Your task to perform on an android device: Search for a sofa on article.com Image 0: 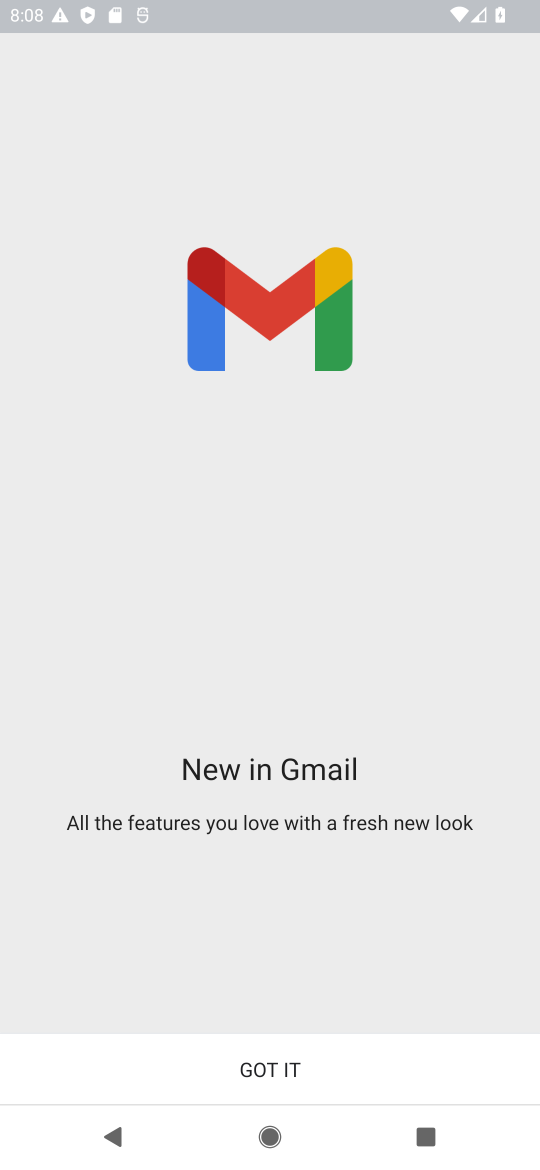
Step 0: click (254, 1081)
Your task to perform on an android device: Search for a sofa on article.com Image 1: 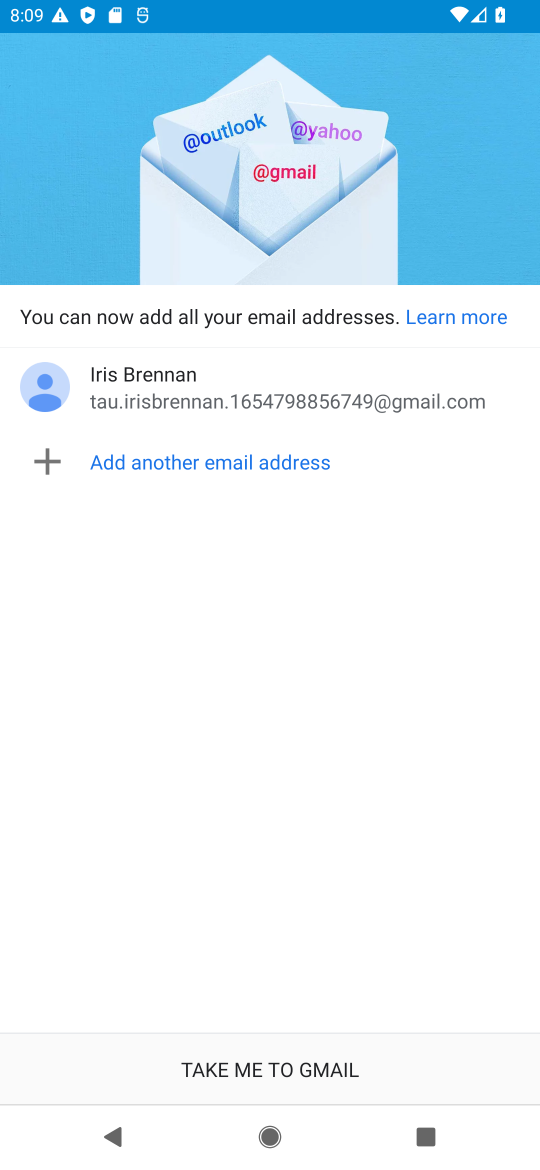
Step 1: click (219, 1070)
Your task to perform on an android device: Search for a sofa on article.com Image 2: 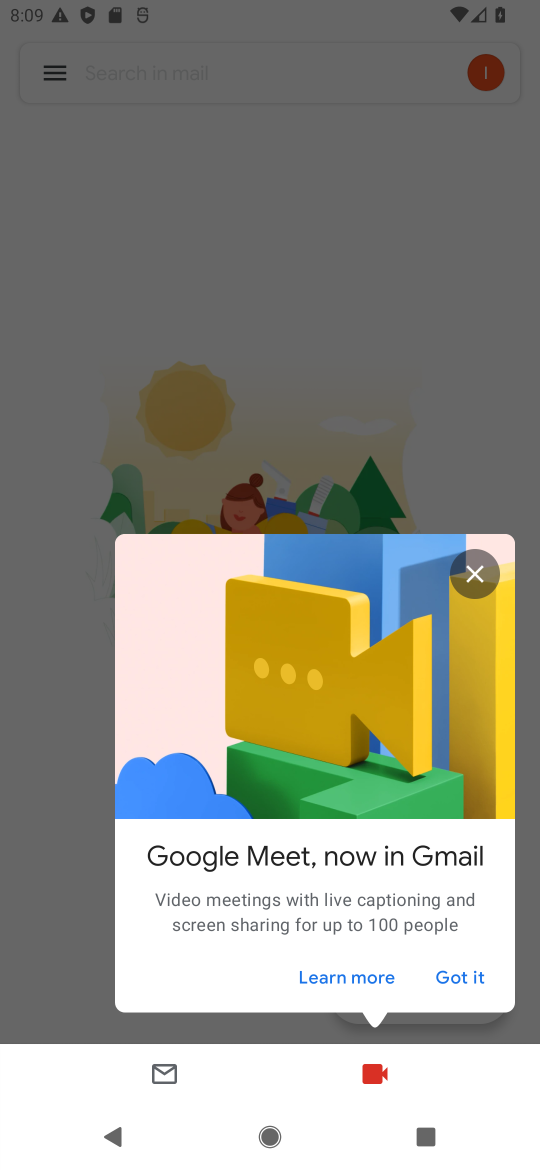
Step 2: click (471, 981)
Your task to perform on an android device: Search for a sofa on article.com Image 3: 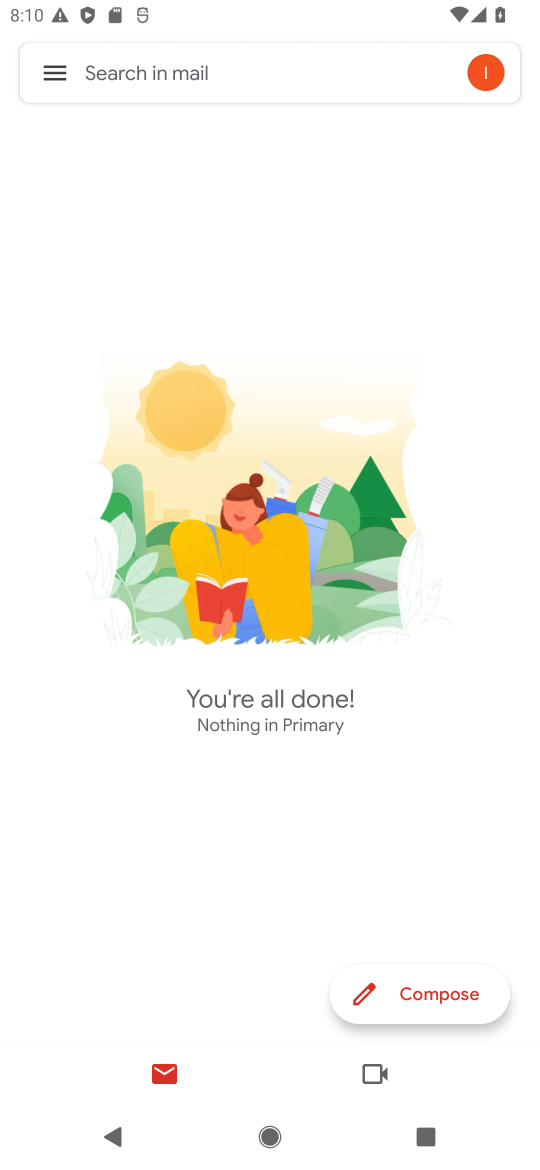
Step 3: press home button
Your task to perform on an android device: Search for a sofa on article.com Image 4: 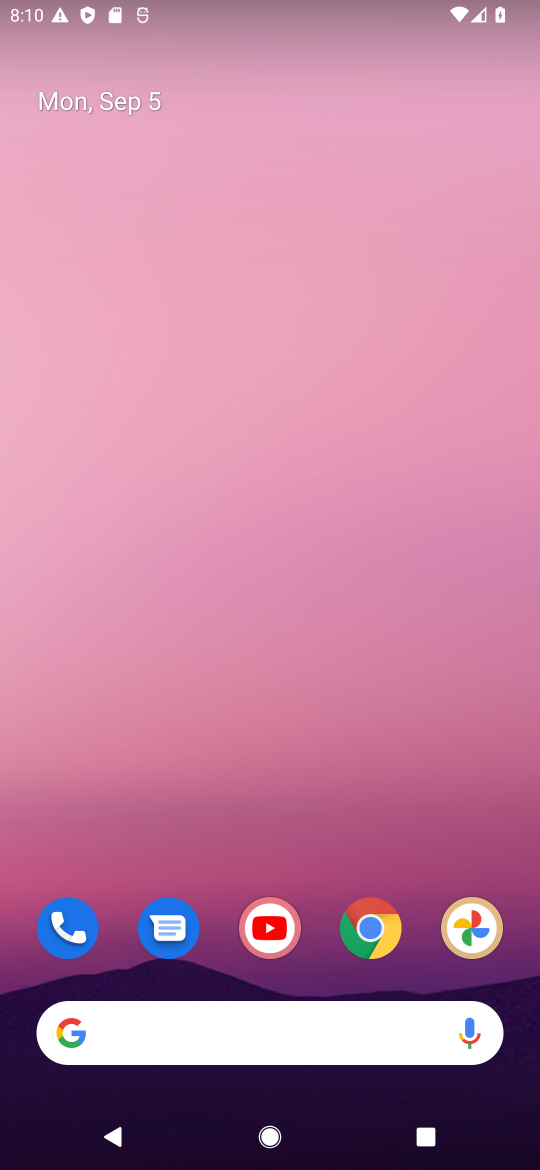
Step 4: click (353, 946)
Your task to perform on an android device: Search for a sofa on article.com Image 5: 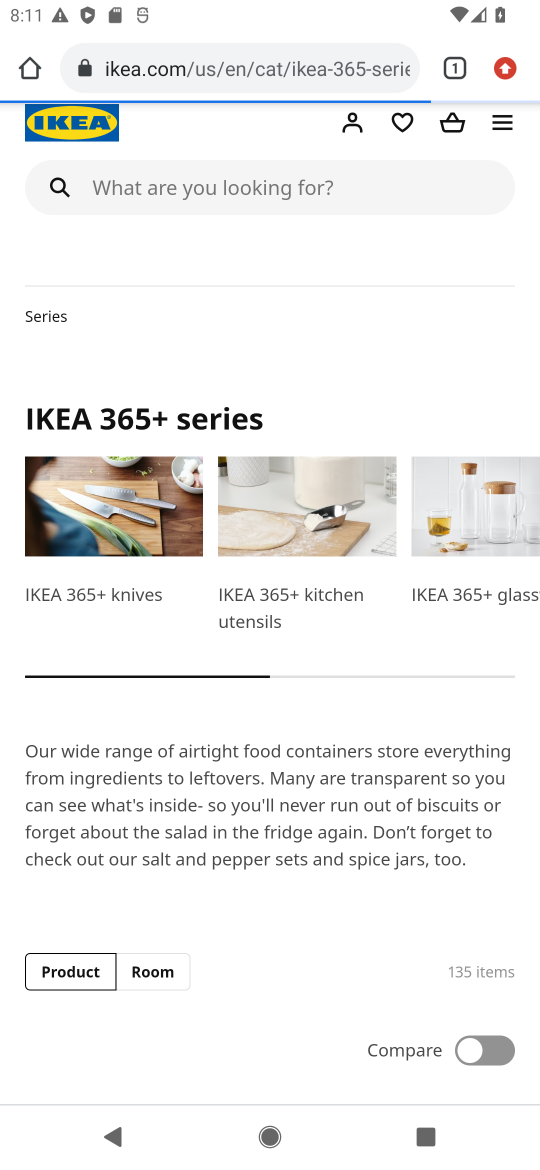
Step 5: click (287, 76)
Your task to perform on an android device: Search for a sofa on article.com Image 6: 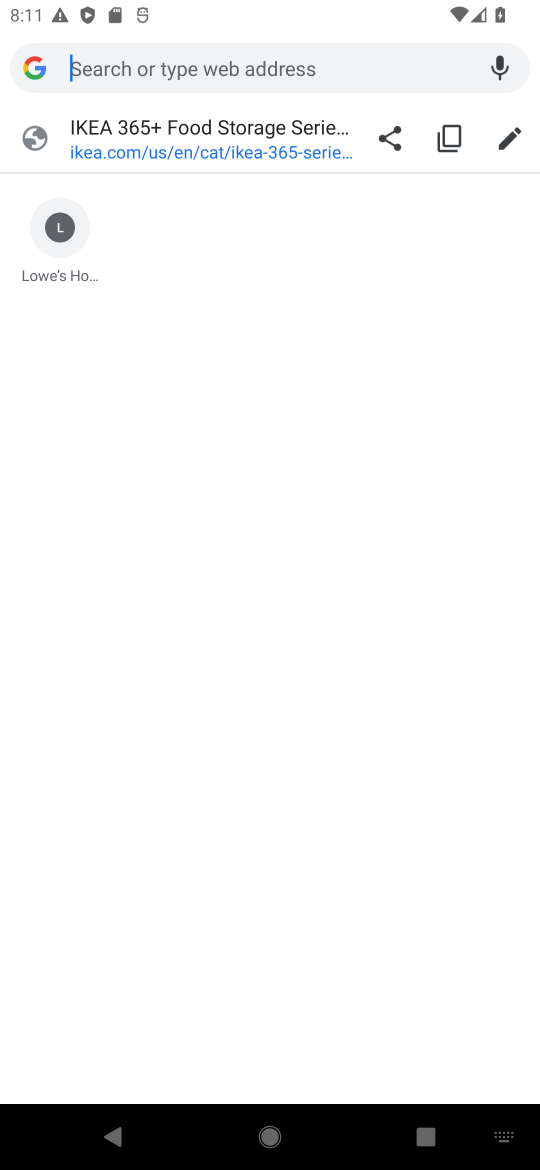
Step 6: type "article.com"
Your task to perform on an android device: Search for a sofa on article.com Image 7: 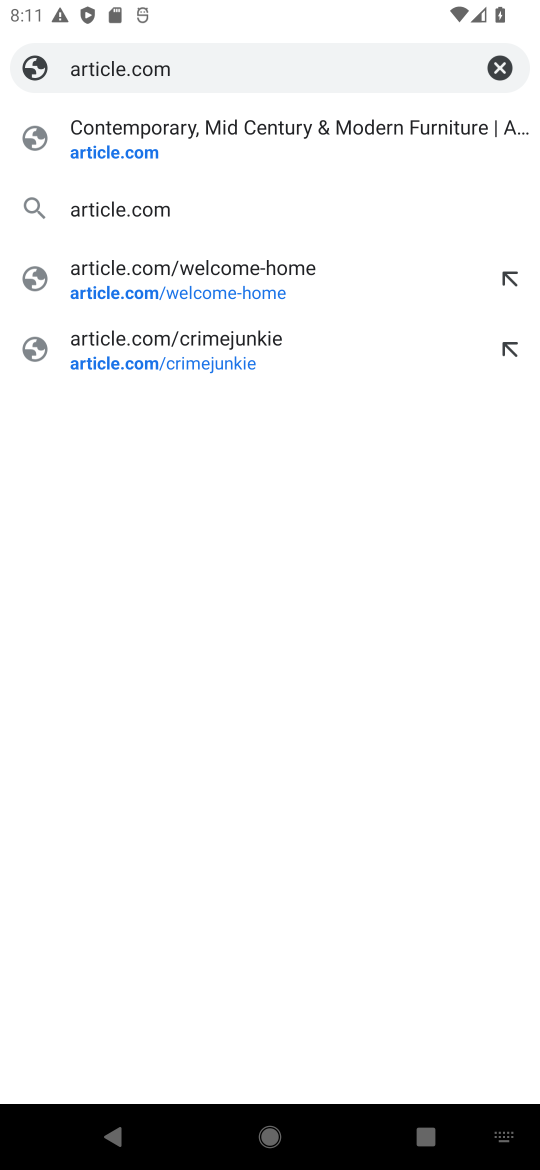
Step 7: click (351, 134)
Your task to perform on an android device: Search for a sofa on article.com Image 8: 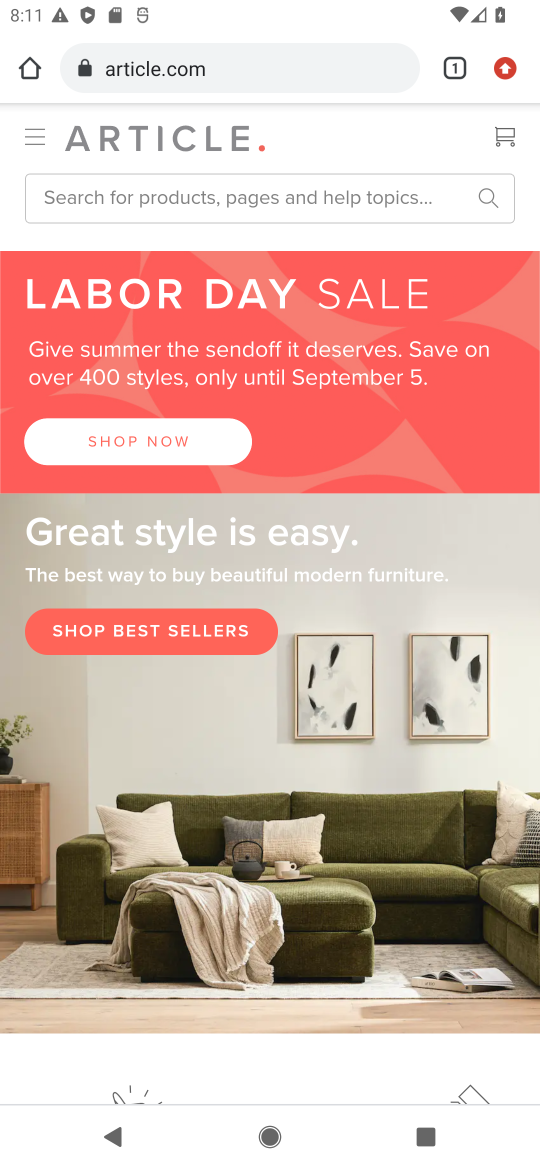
Step 8: click (287, 199)
Your task to perform on an android device: Search for a sofa on article.com Image 9: 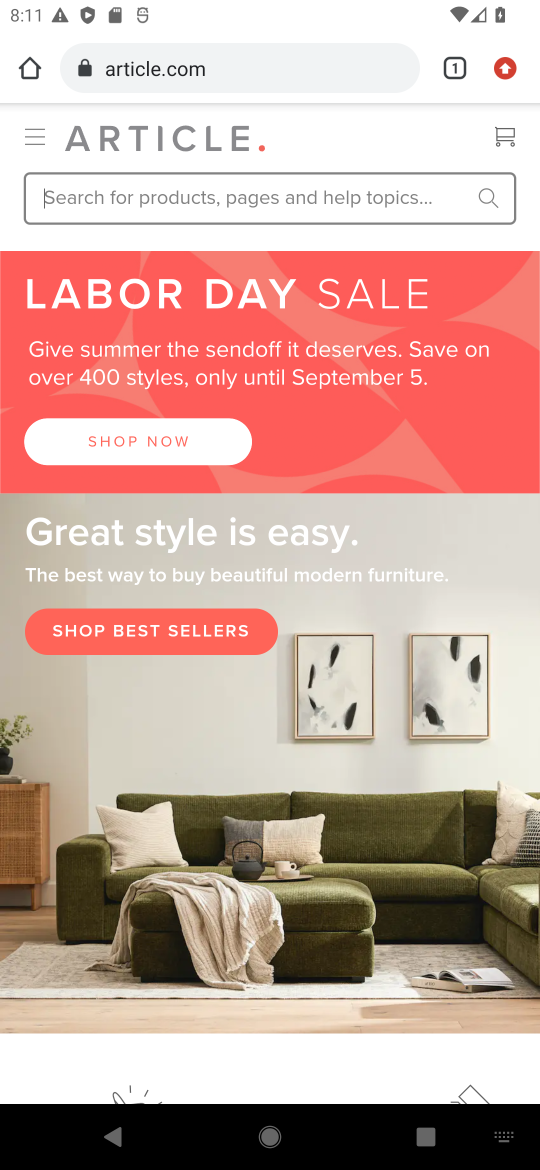
Step 9: click (287, 199)
Your task to perform on an android device: Search for a sofa on article.com Image 10: 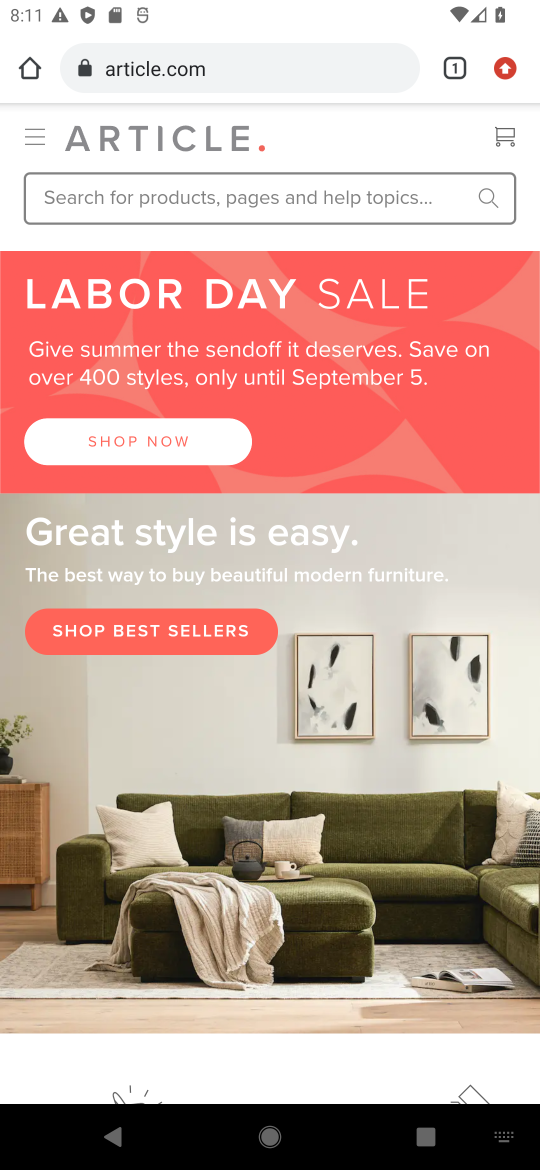
Step 10: click (297, 198)
Your task to perform on an android device: Search for a sofa on article.com Image 11: 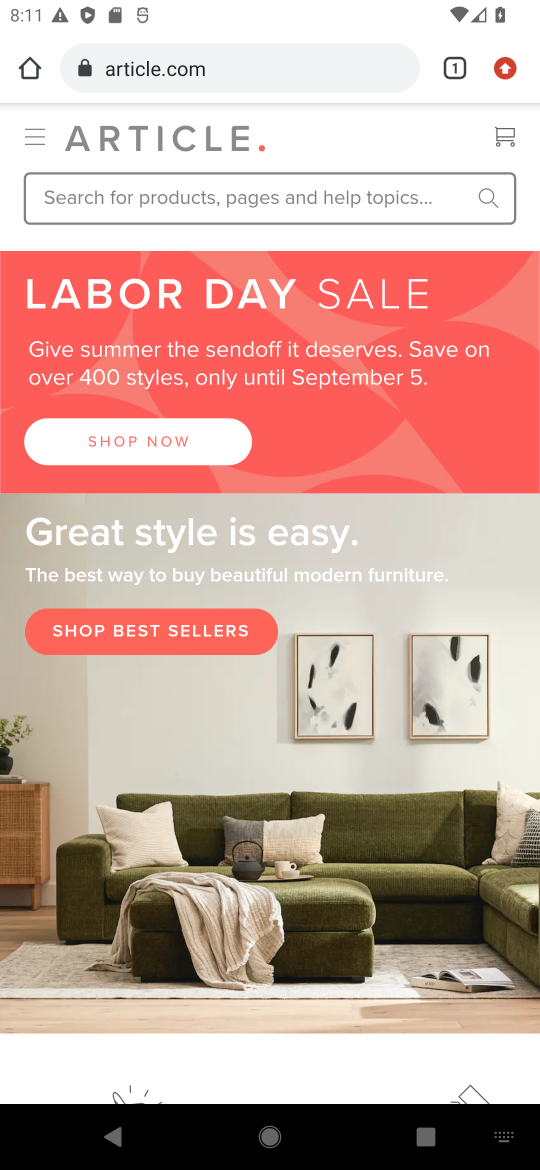
Step 11: click (368, 206)
Your task to perform on an android device: Search for a sofa on article.com Image 12: 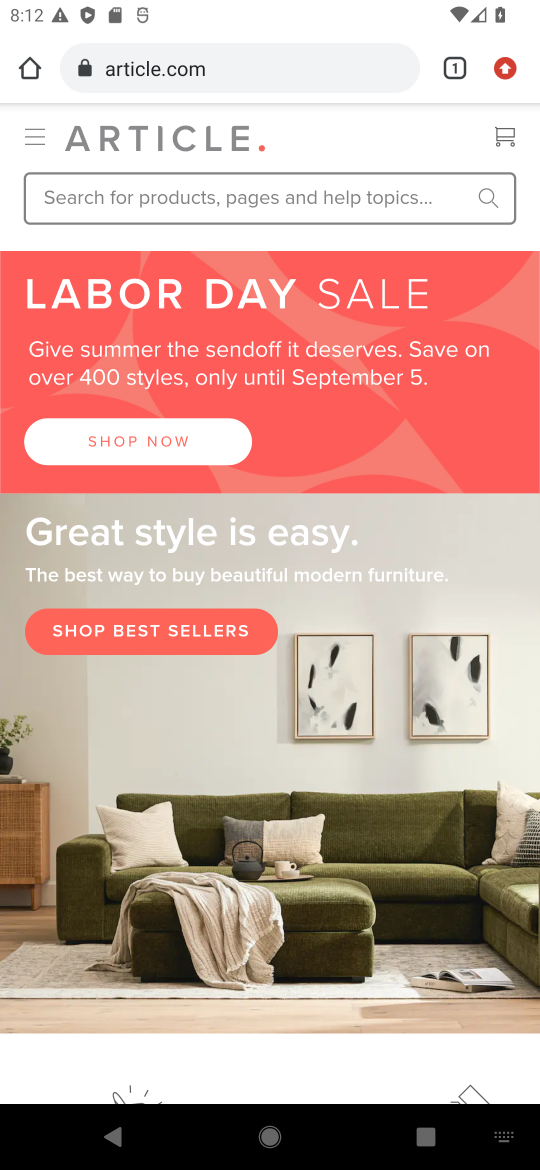
Step 12: type "sofa"
Your task to perform on an android device: Search for a sofa on article.com Image 13: 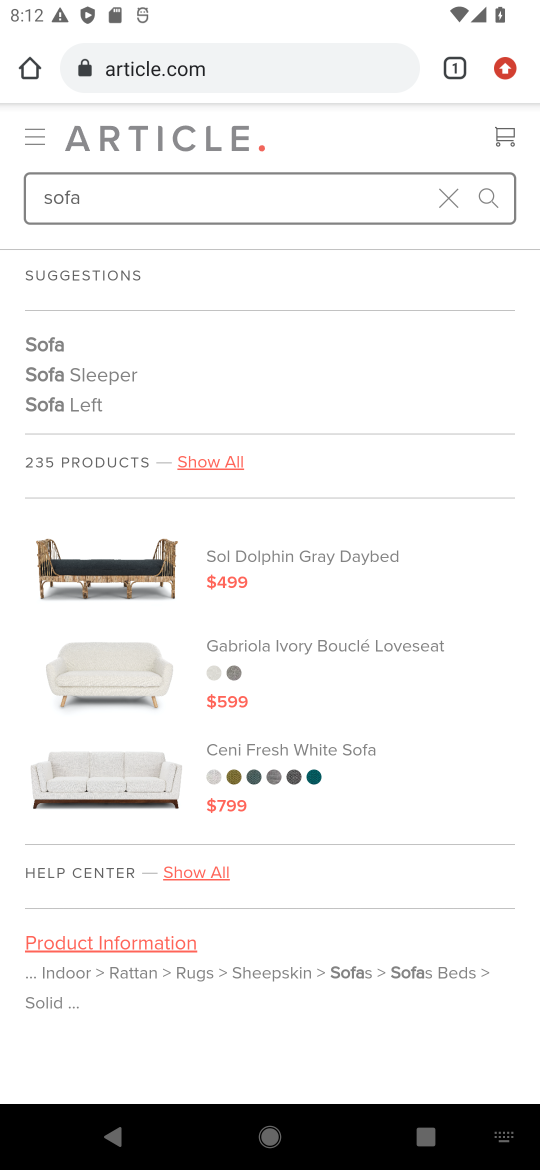
Step 13: click (107, 569)
Your task to perform on an android device: Search for a sofa on article.com Image 14: 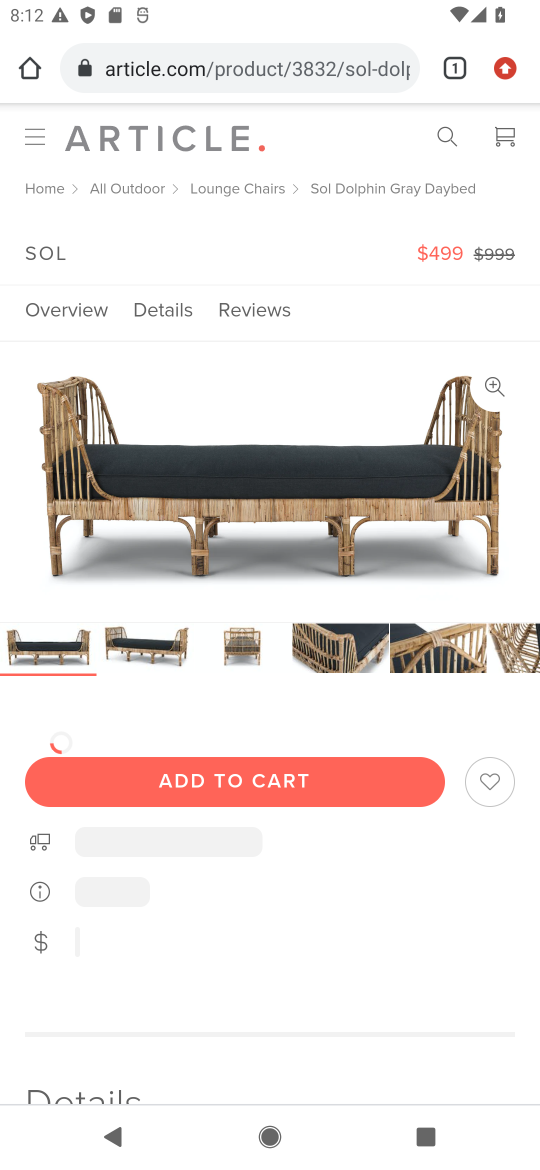
Step 14: task complete